Your task to perform on an android device: Check the weather Image 0: 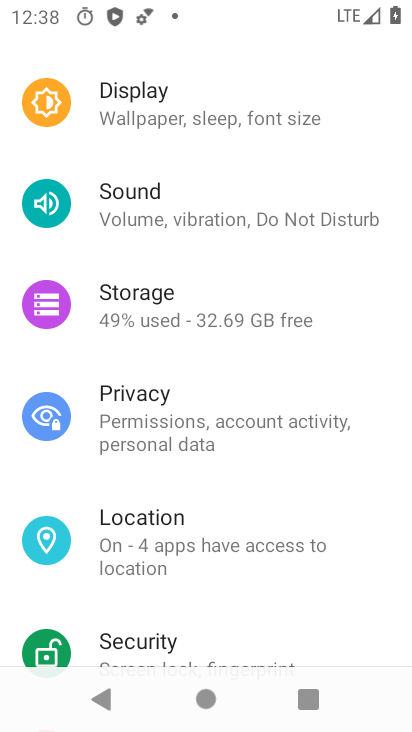
Step 0: press home button
Your task to perform on an android device: Check the weather Image 1: 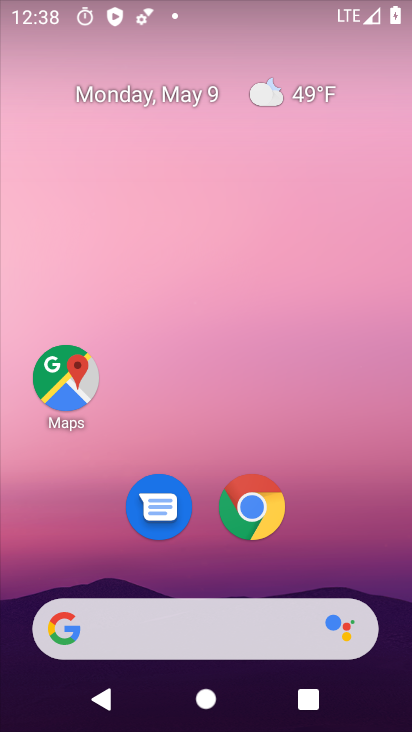
Step 1: click (267, 91)
Your task to perform on an android device: Check the weather Image 2: 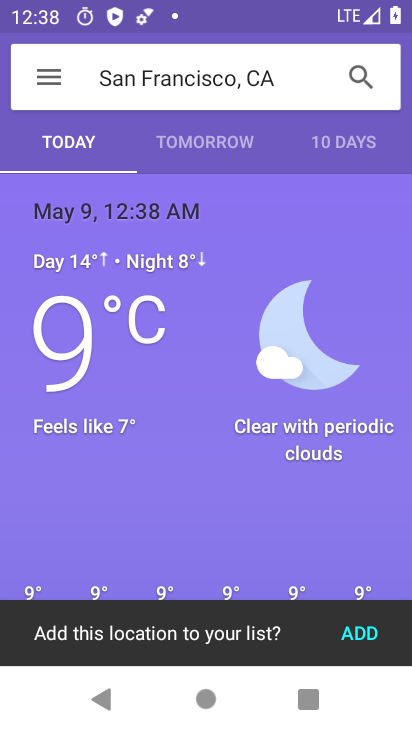
Step 2: task complete